Your task to perform on an android device: How do I get to the nearest Verizon Store? Image 0: 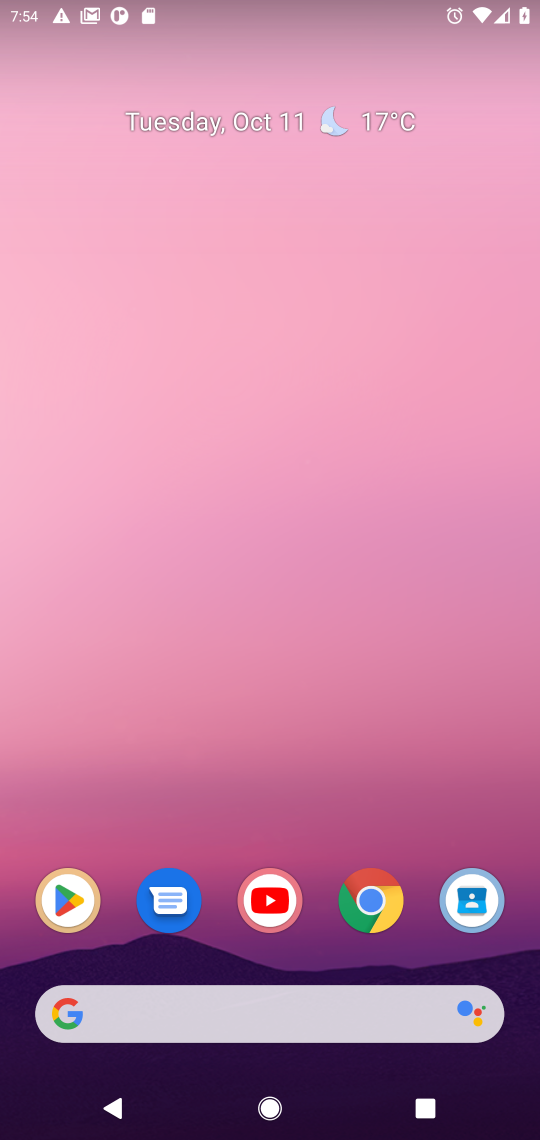
Step 0: click (374, 903)
Your task to perform on an android device: How do I get to the nearest Verizon Store? Image 1: 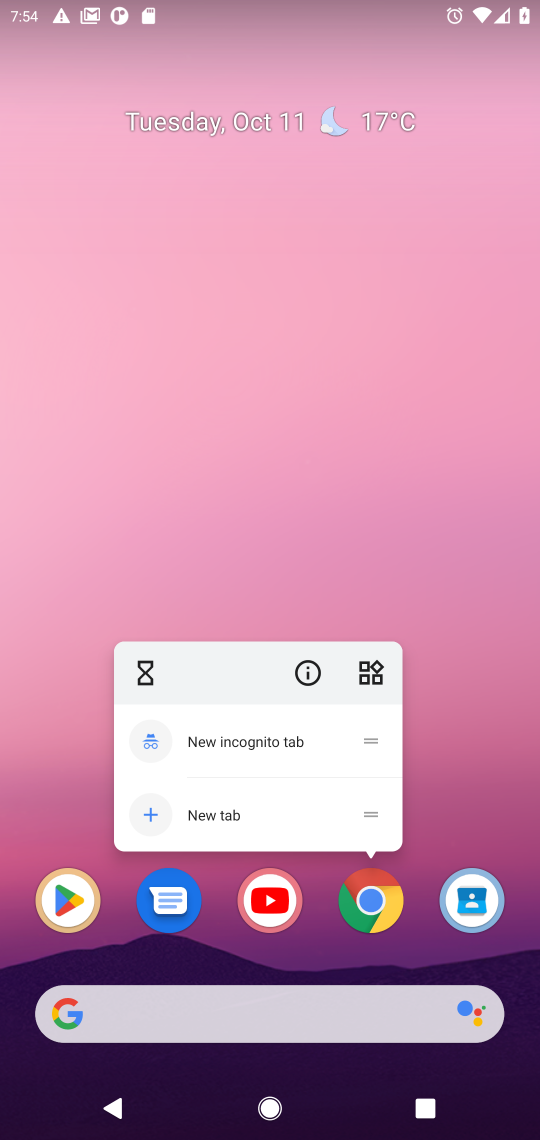
Step 1: click (367, 902)
Your task to perform on an android device: How do I get to the nearest Verizon Store? Image 2: 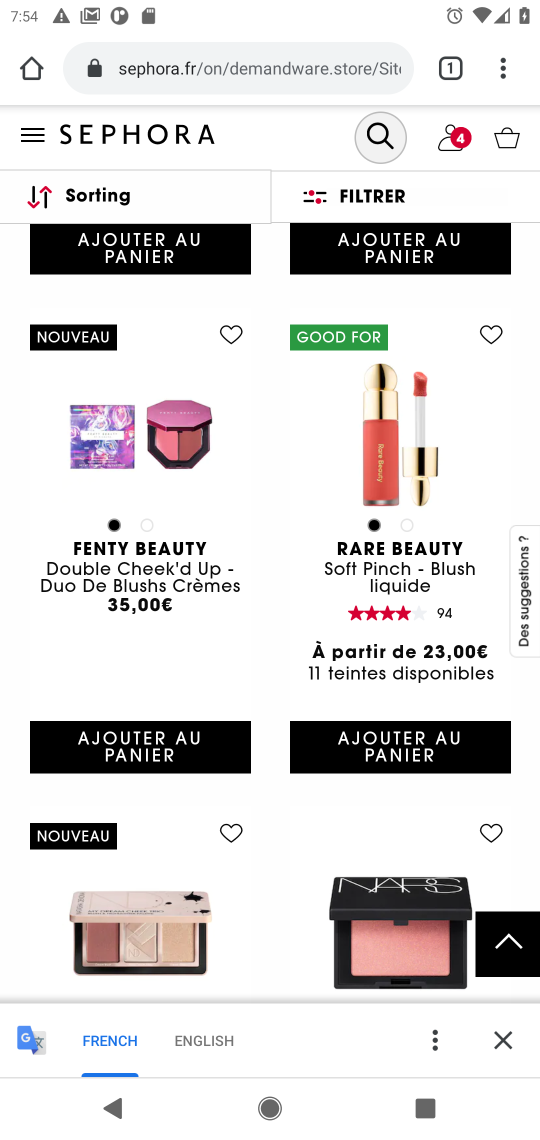
Step 2: click (326, 62)
Your task to perform on an android device: How do I get to the nearest Verizon Store? Image 3: 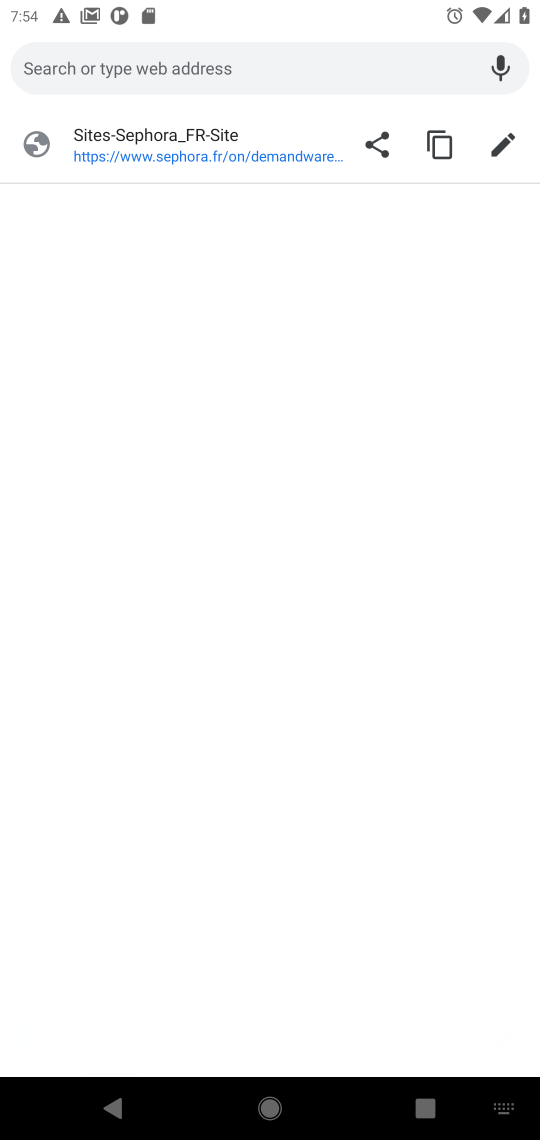
Step 3: type "How do I get to the nearest Verizon Store"
Your task to perform on an android device: How do I get to the nearest Verizon Store? Image 4: 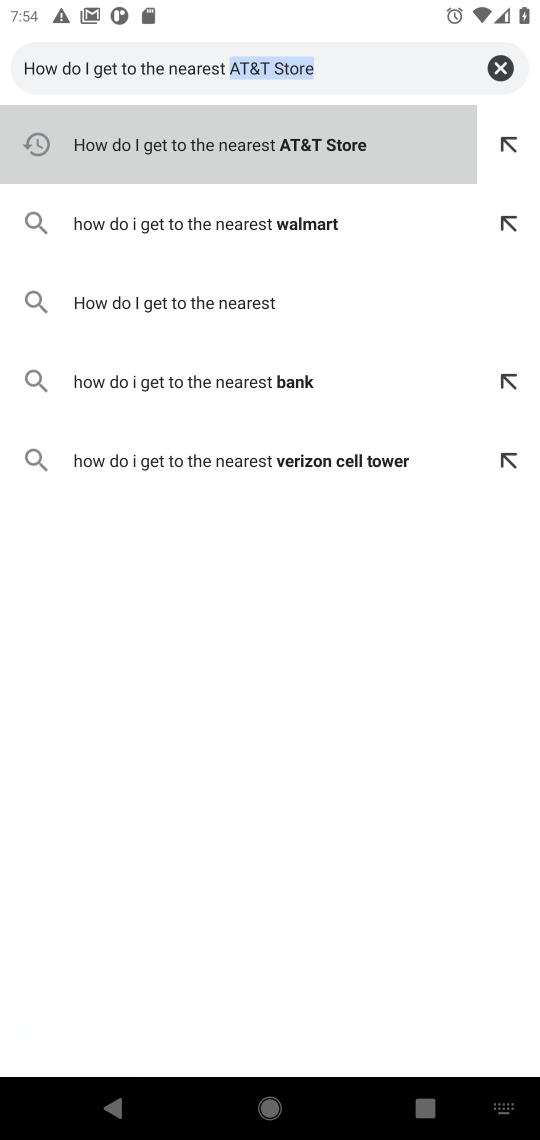
Step 4: press enter
Your task to perform on an android device: How do I get to the nearest Verizon Store? Image 5: 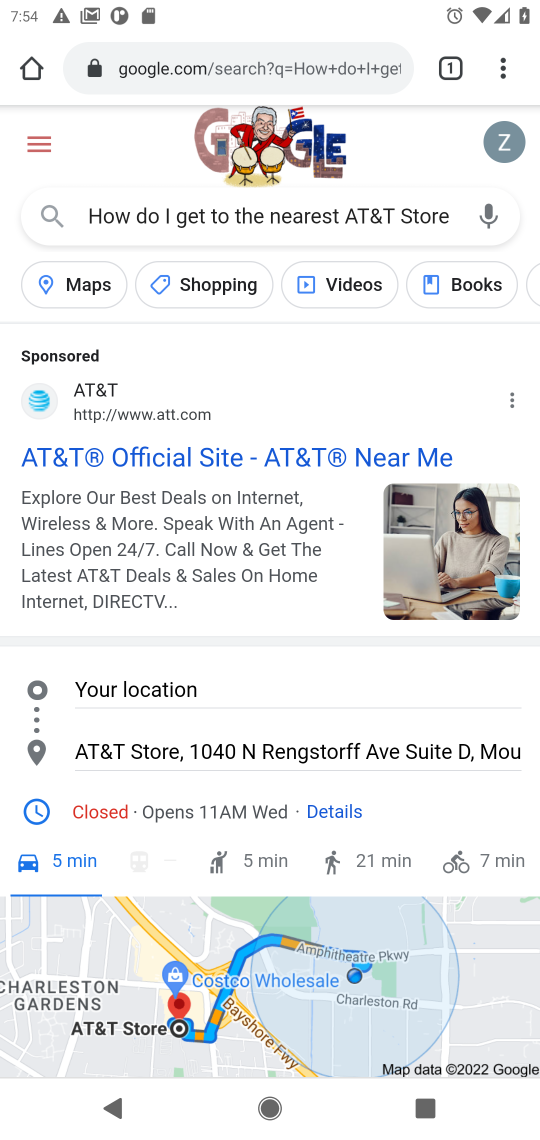
Step 5: task complete